Your task to perform on an android device: allow notifications from all sites in the chrome app Image 0: 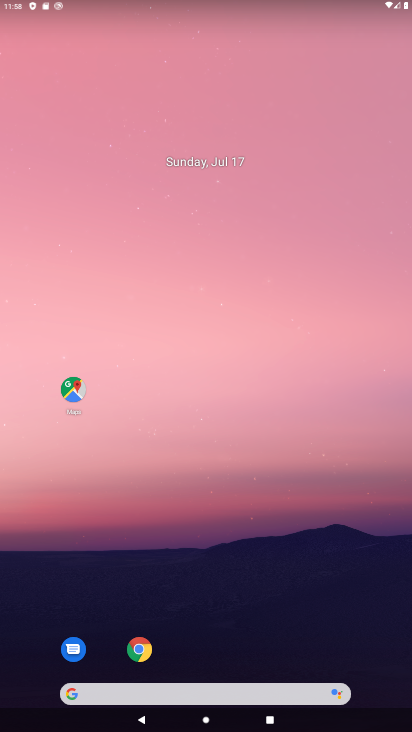
Step 0: click (133, 657)
Your task to perform on an android device: allow notifications from all sites in the chrome app Image 1: 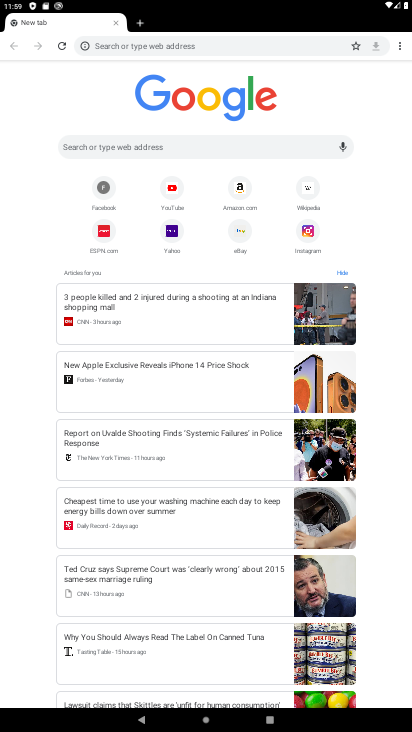
Step 1: click (396, 40)
Your task to perform on an android device: allow notifications from all sites in the chrome app Image 2: 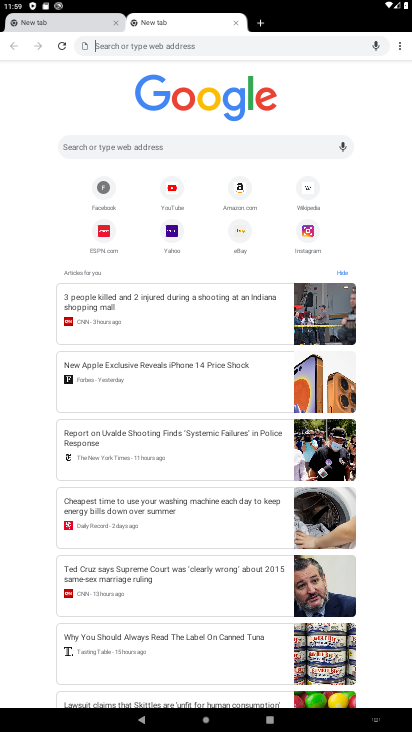
Step 2: click (395, 46)
Your task to perform on an android device: allow notifications from all sites in the chrome app Image 3: 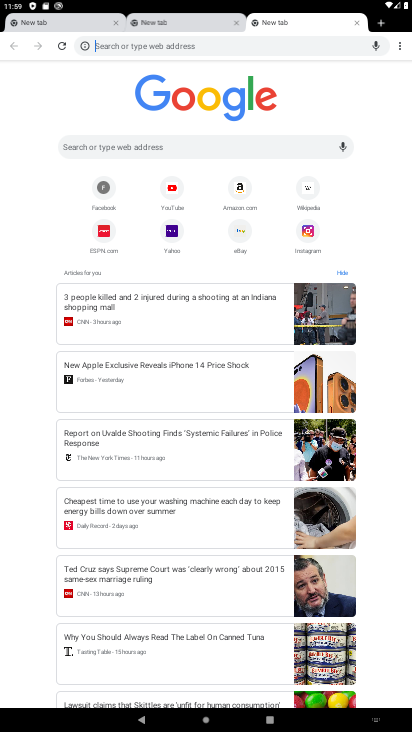
Step 3: click (406, 45)
Your task to perform on an android device: allow notifications from all sites in the chrome app Image 4: 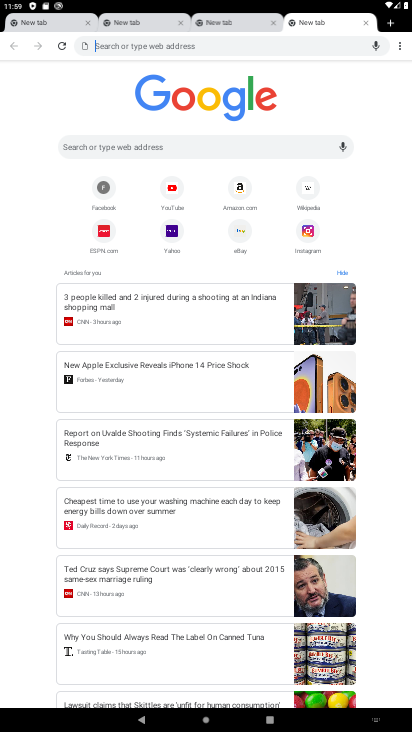
Step 4: task complete